Your task to perform on an android device: Go to Android settings Image 0: 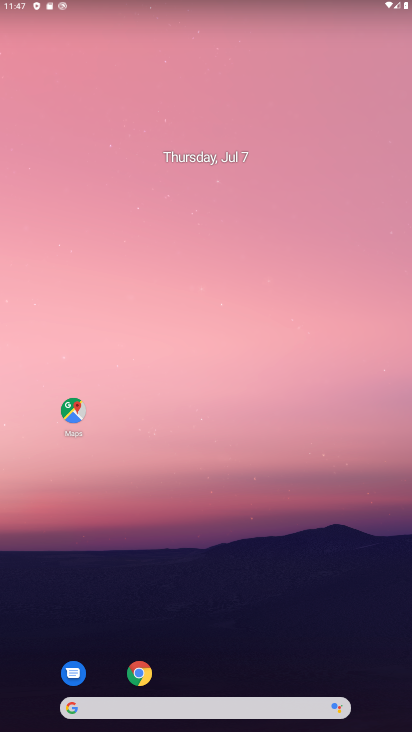
Step 0: drag from (226, 637) to (208, 57)
Your task to perform on an android device: Go to Android settings Image 1: 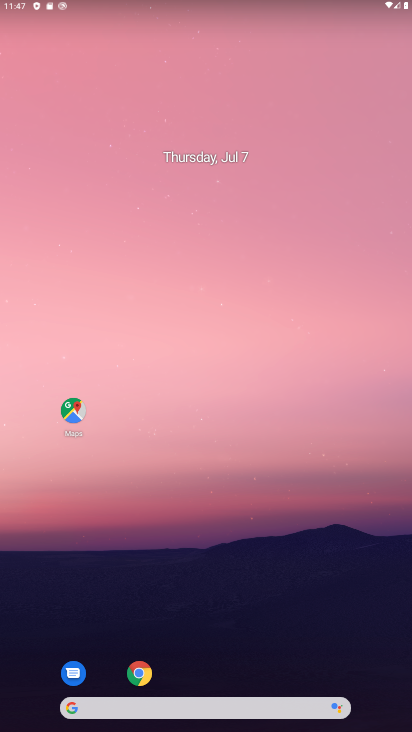
Step 1: drag from (245, 608) to (281, 66)
Your task to perform on an android device: Go to Android settings Image 2: 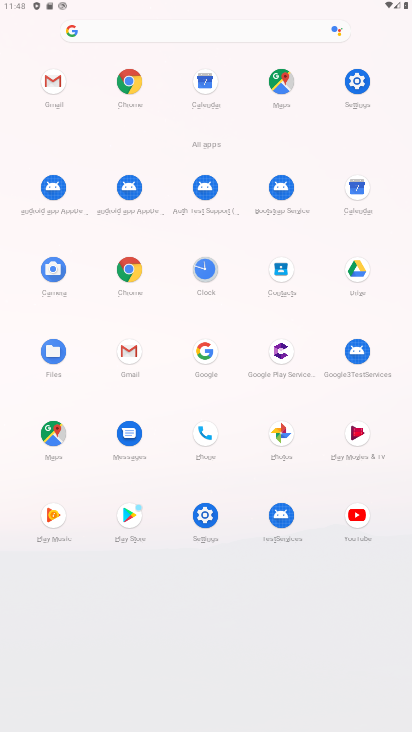
Step 2: click (357, 80)
Your task to perform on an android device: Go to Android settings Image 3: 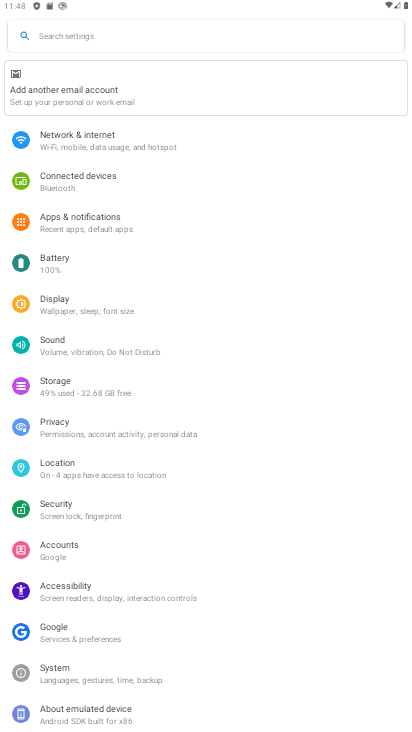
Step 3: task complete